Your task to perform on an android device: open sync settings in chrome Image 0: 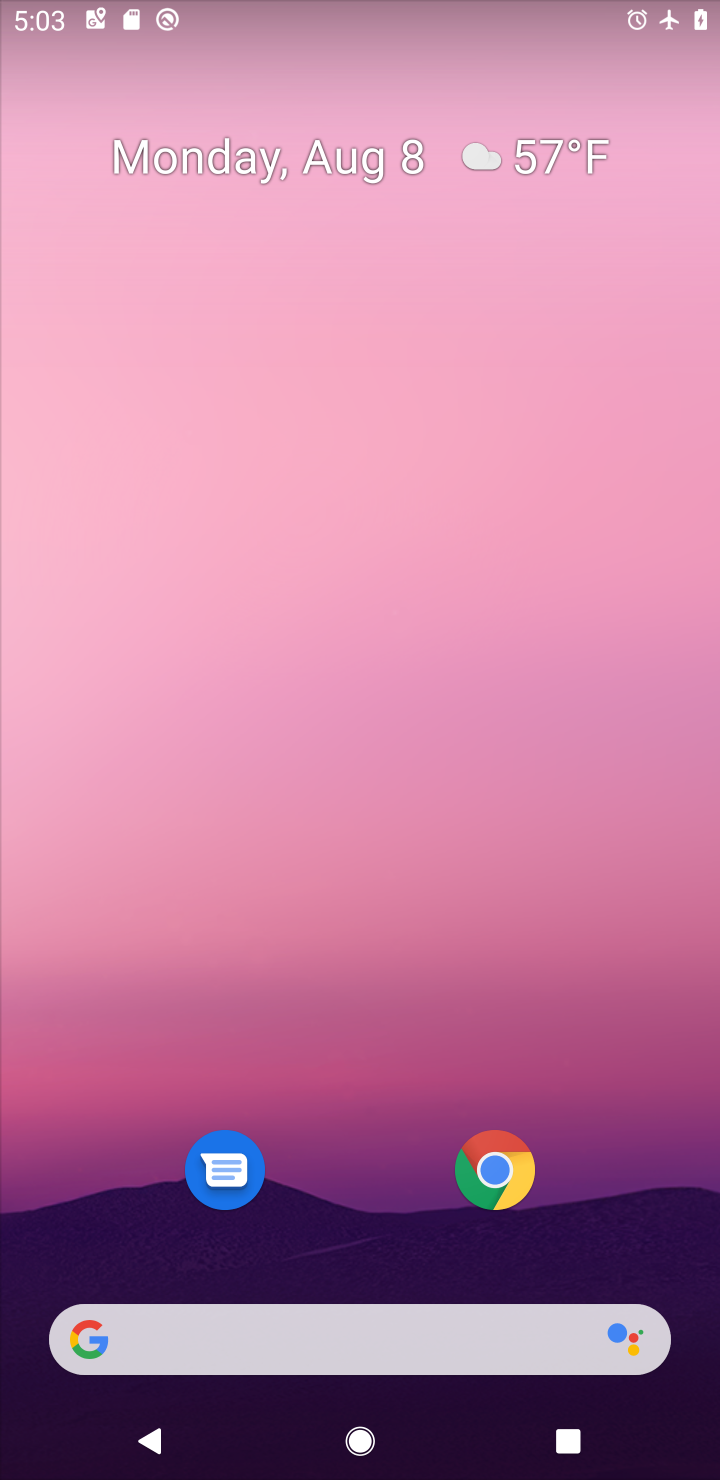
Step 0: click (517, 1211)
Your task to perform on an android device: open sync settings in chrome Image 1: 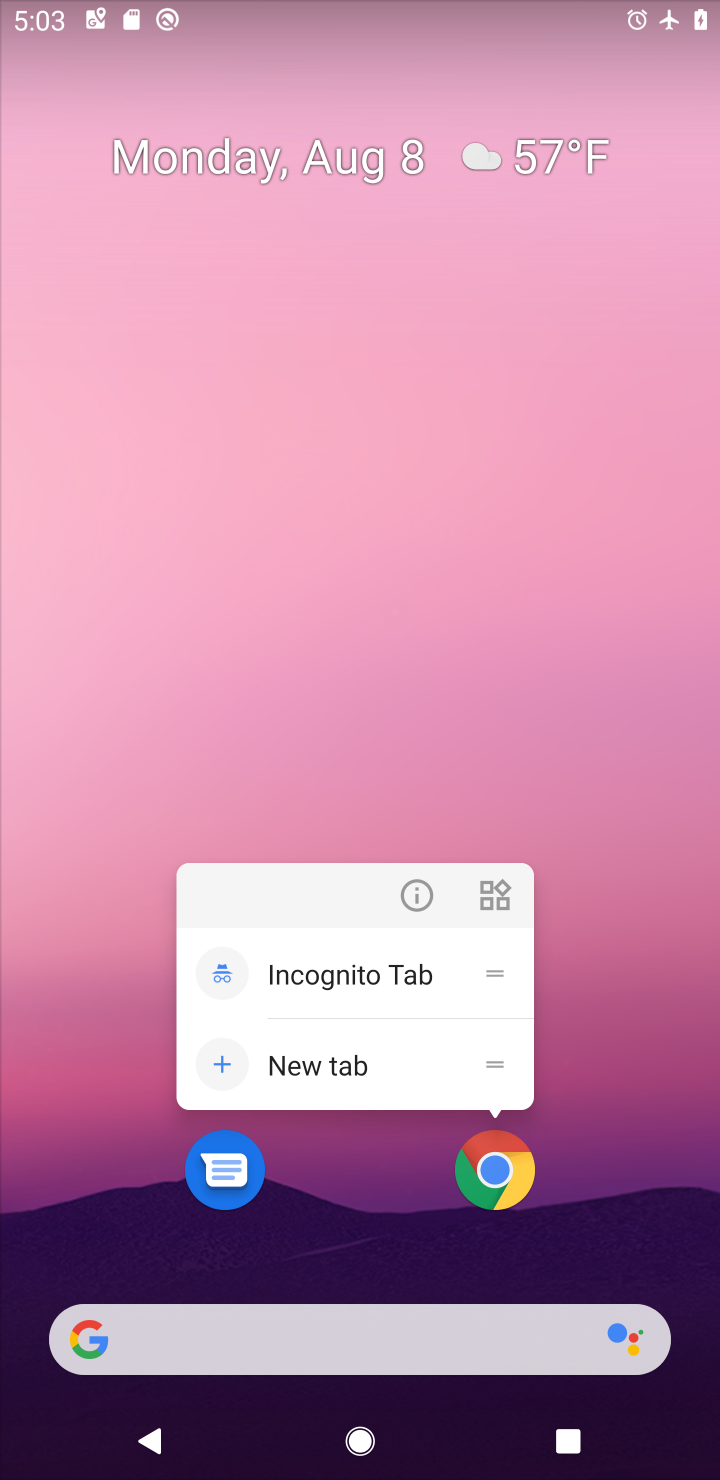
Step 1: click (498, 1197)
Your task to perform on an android device: open sync settings in chrome Image 2: 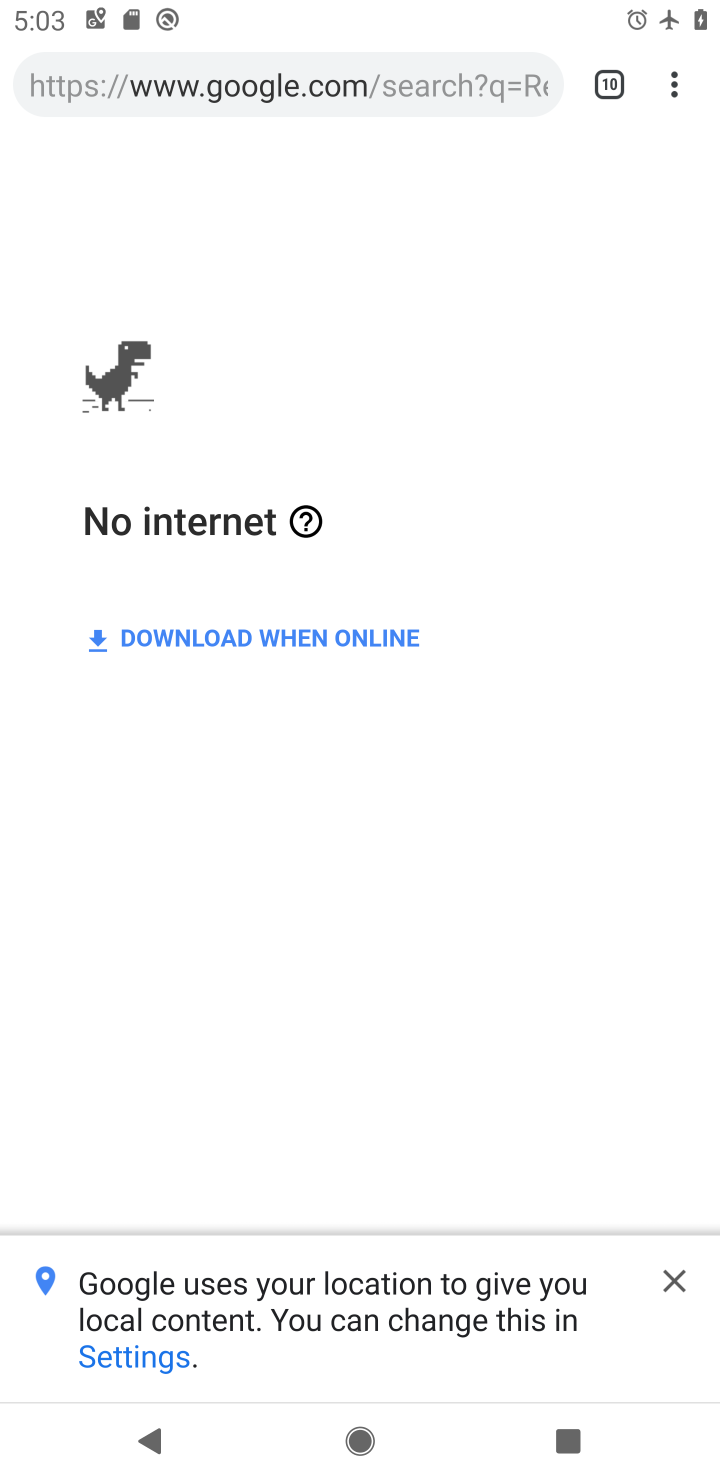
Step 2: click (681, 98)
Your task to perform on an android device: open sync settings in chrome Image 3: 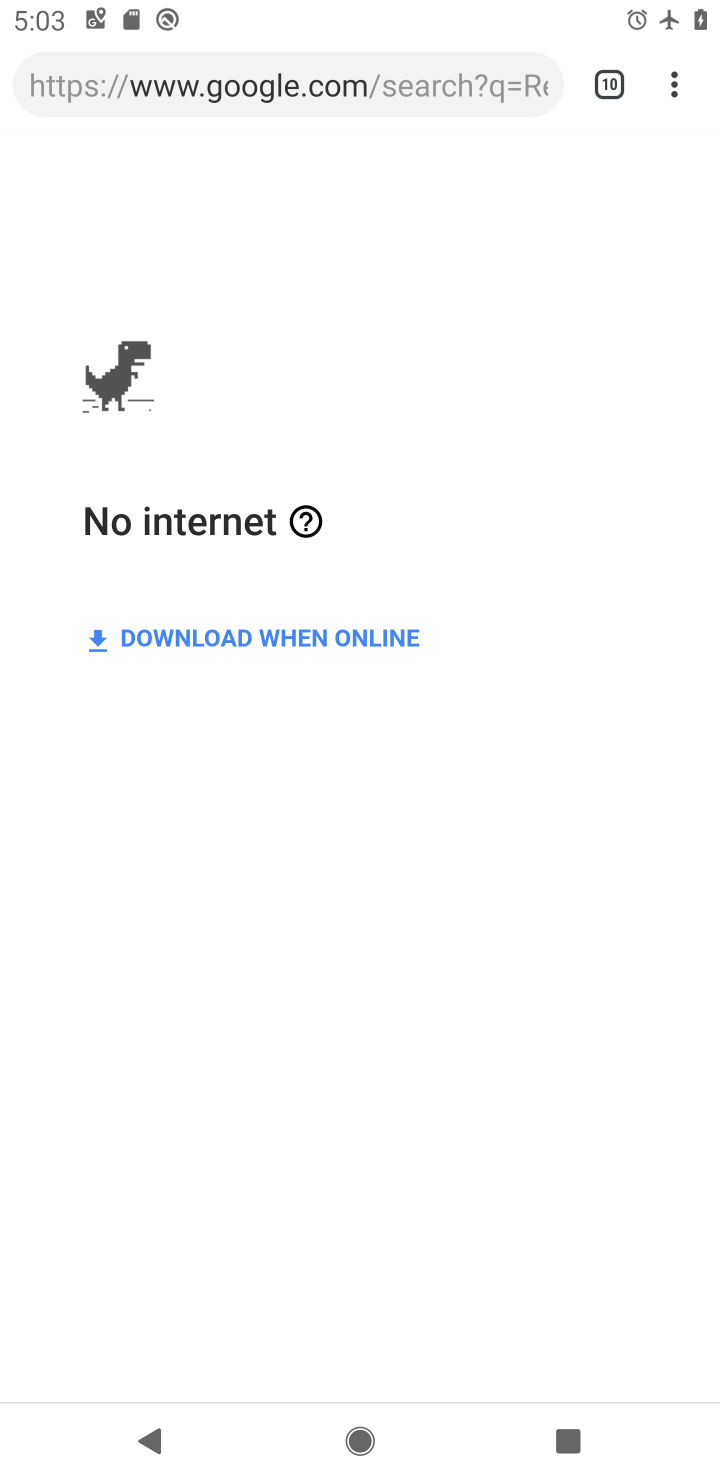
Step 3: drag from (681, 98) to (396, 923)
Your task to perform on an android device: open sync settings in chrome Image 4: 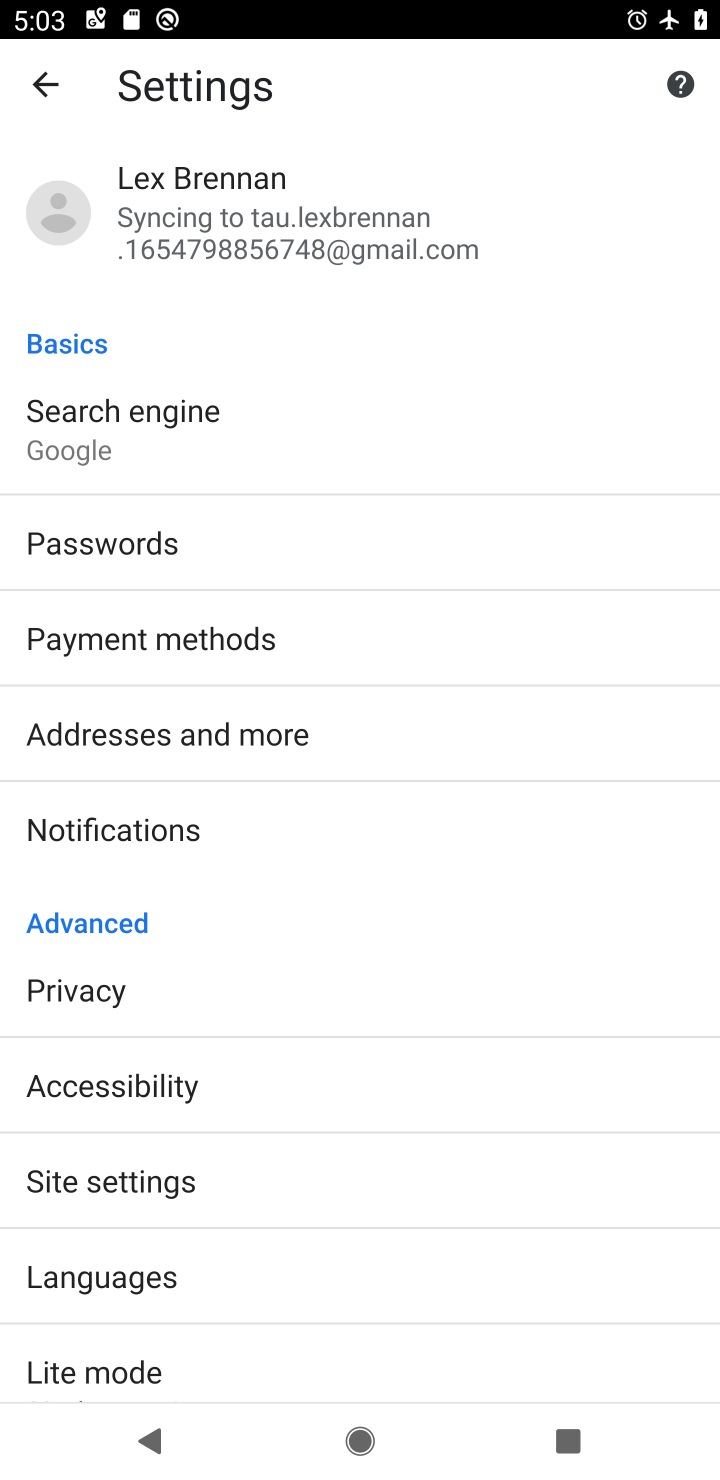
Step 4: drag from (179, 1337) to (267, 542)
Your task to perform on an android device: open sync settings in chrome Image 5: 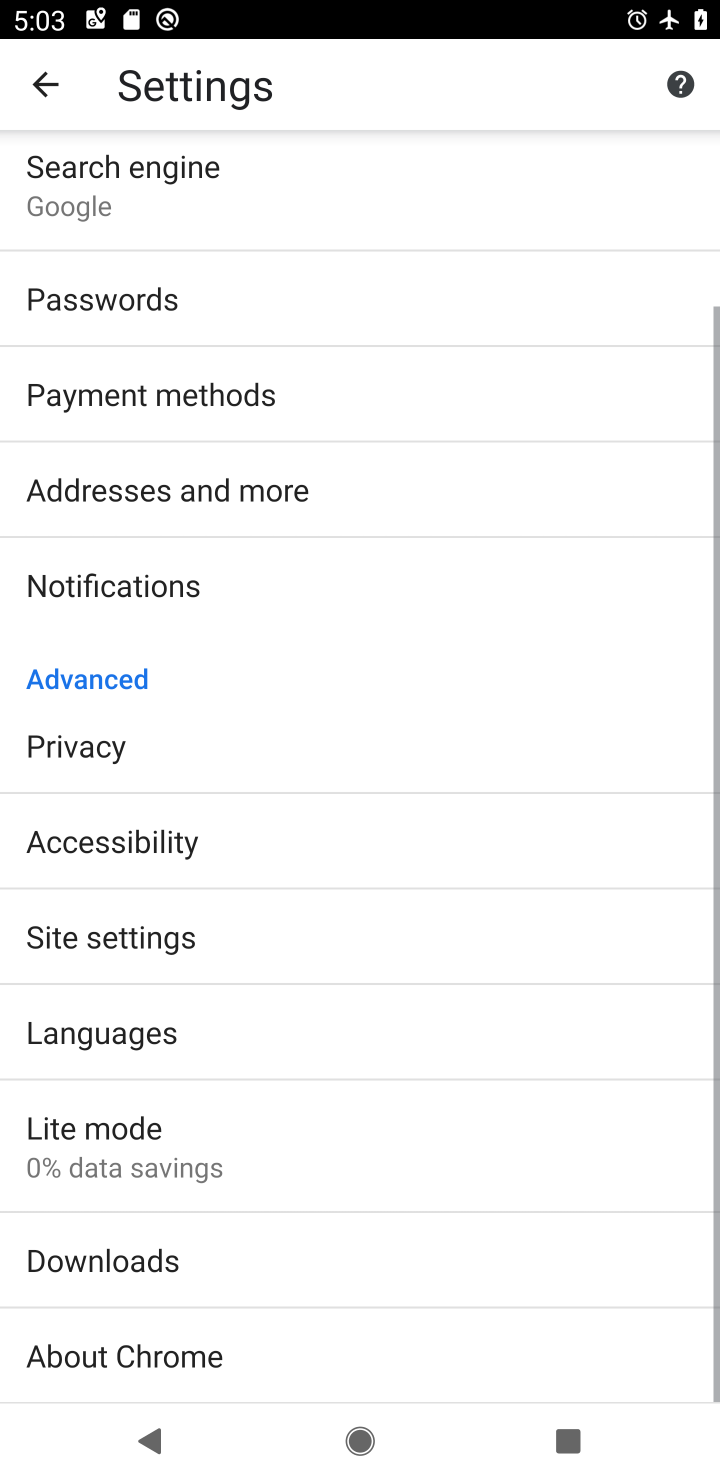
Step 5: drag from (205, 1214) to (261, 598)
Your task to perform on an android device: open sync settings in chrome Image 6: 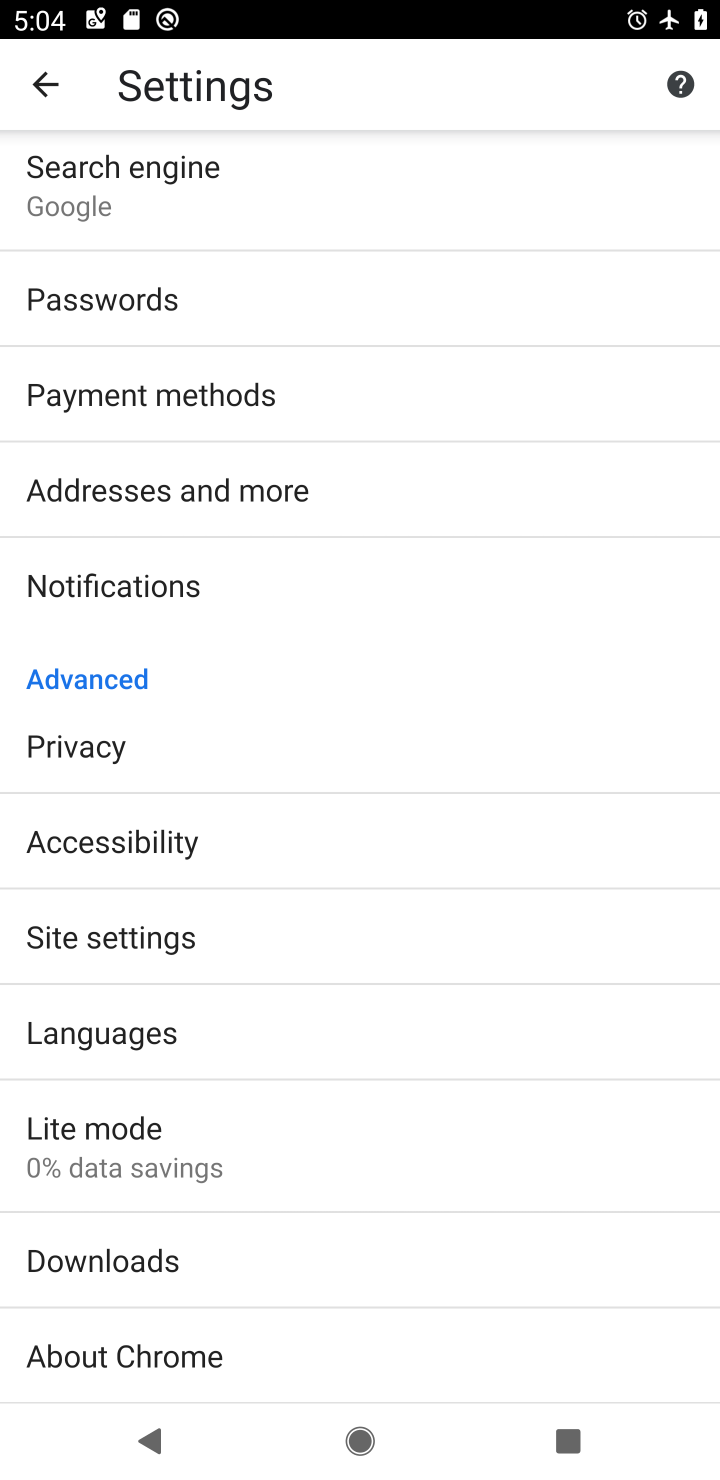
Step 6: drag from (263, 1328) to (362, 594)
Your task to perform on an android device: open sync settings in chrome Image 7: 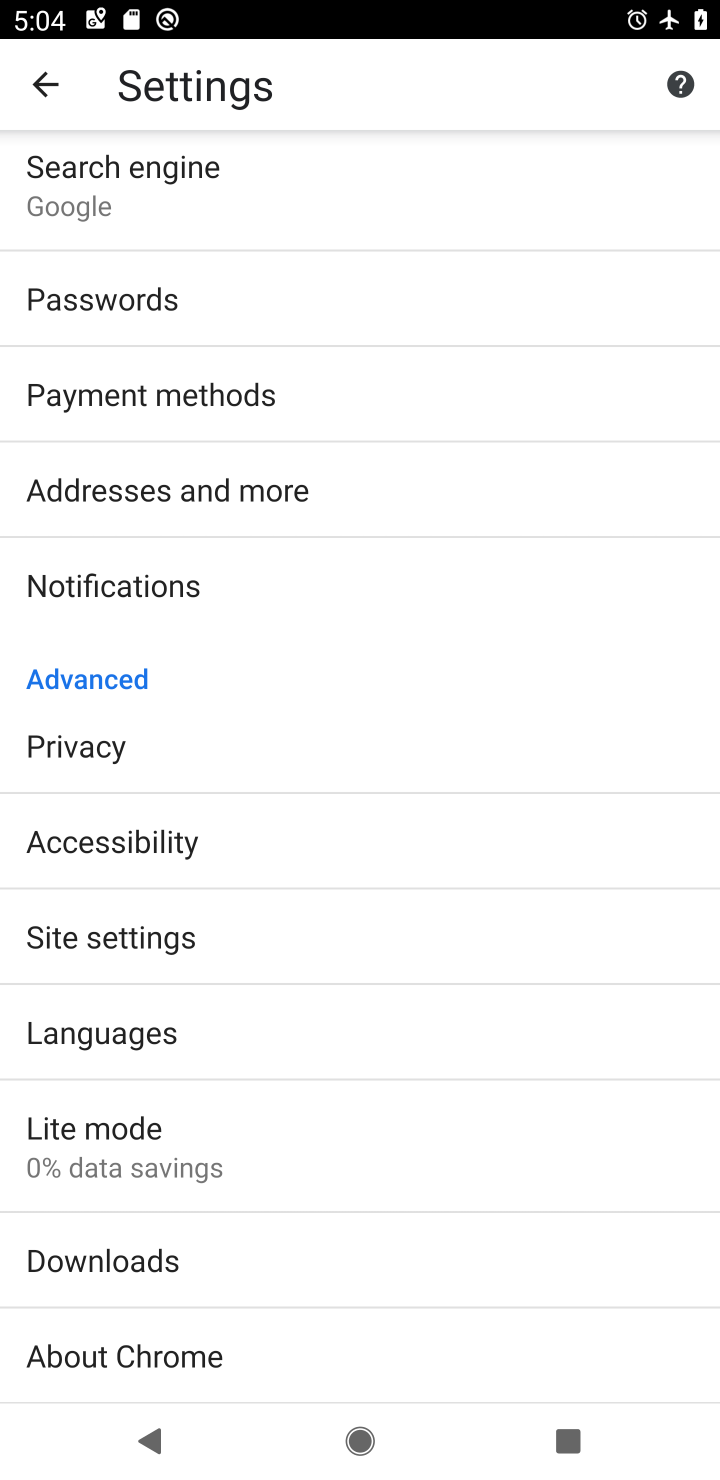
Step 7: drag from (375, 465) to (390, 1234)
Your task to perform on an android device: open sync settings in chrome Image 8: 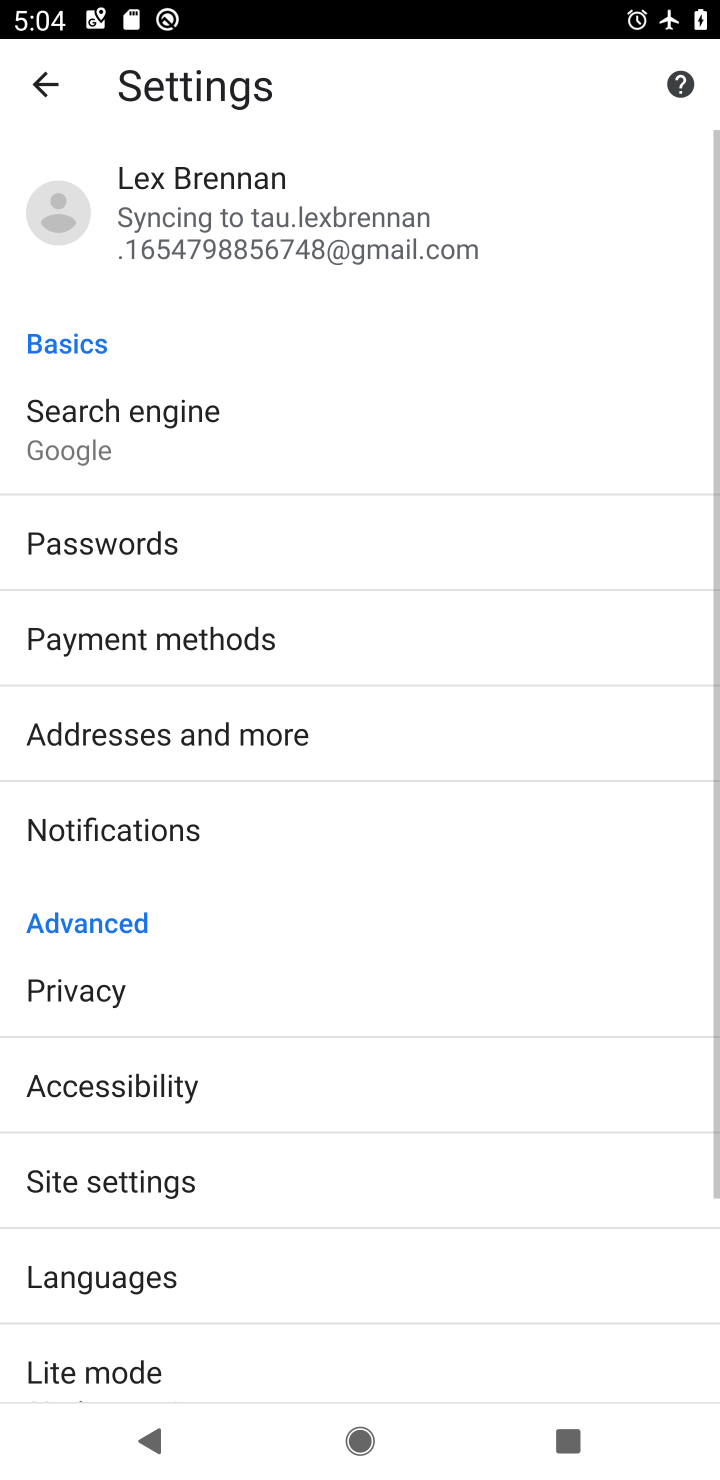
Step 8: click (285, 210)
Your task to perform on an android device: open sync settings in chrome Image 9: 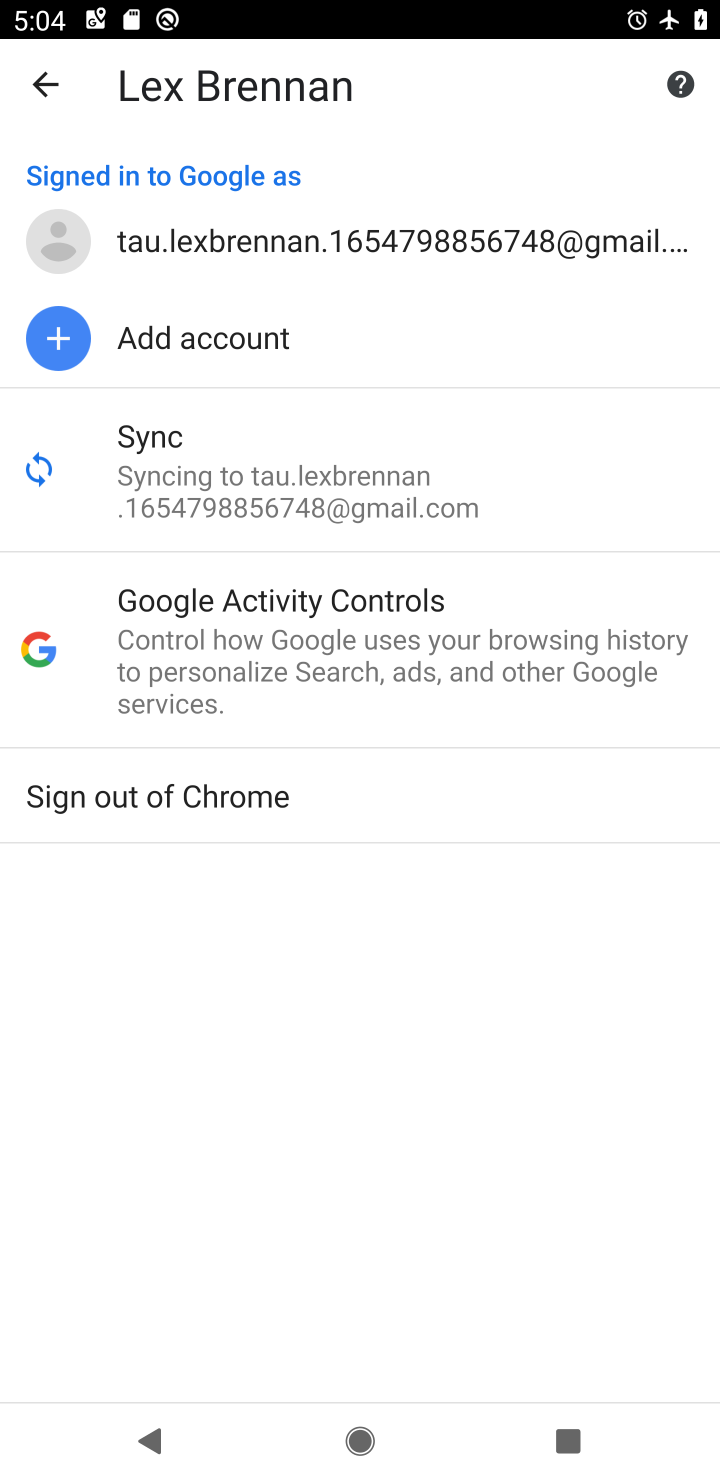
Step 9: click (215, 504)
Your task to perform on an android device: open sync settings in chrome Image 10: 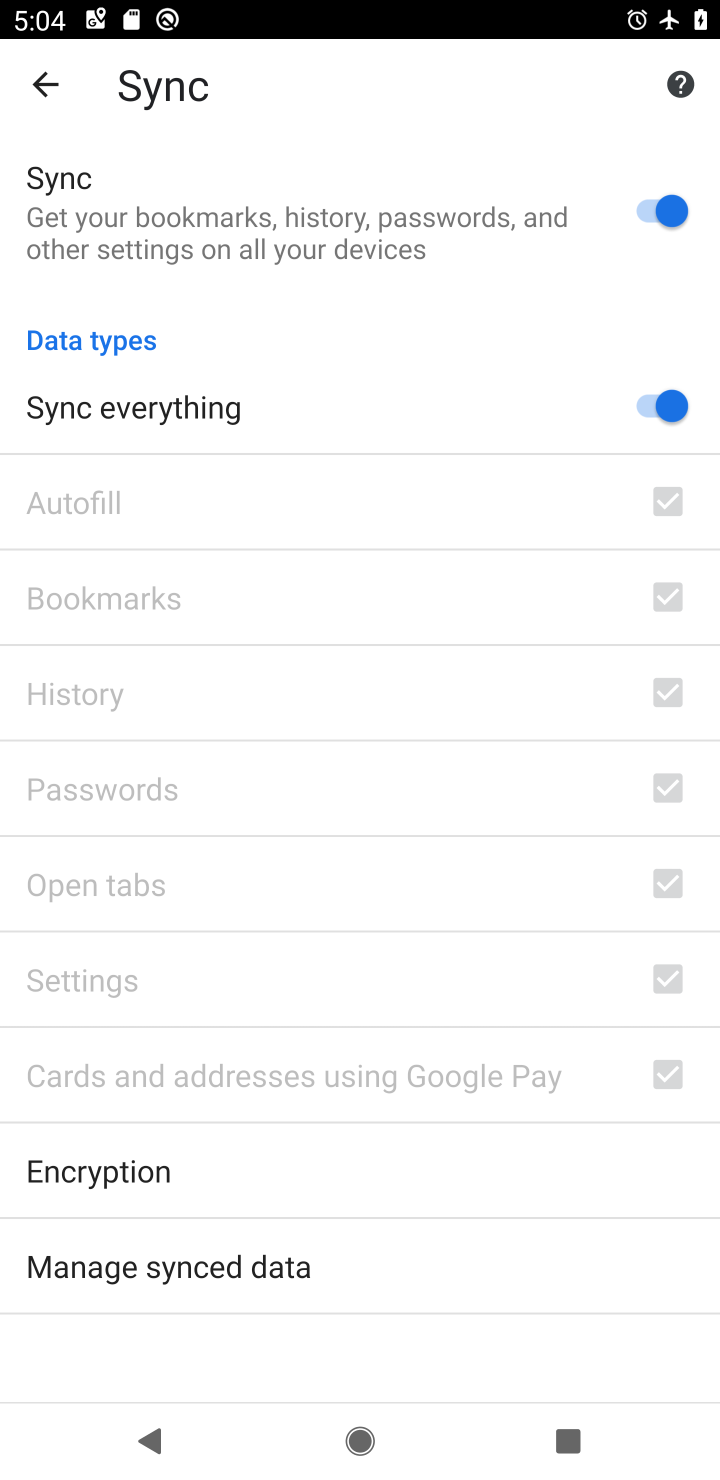
Step 10: task complete